Your task to perform on an android device: Go to internet settings Image 0: 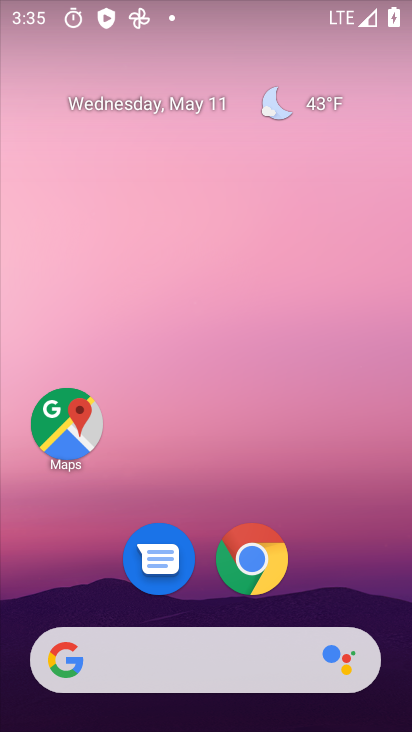
Step 0: drag from (334, 541) to (279, 92)
Your task to perform on an android device: Go to internet settings Image 1: 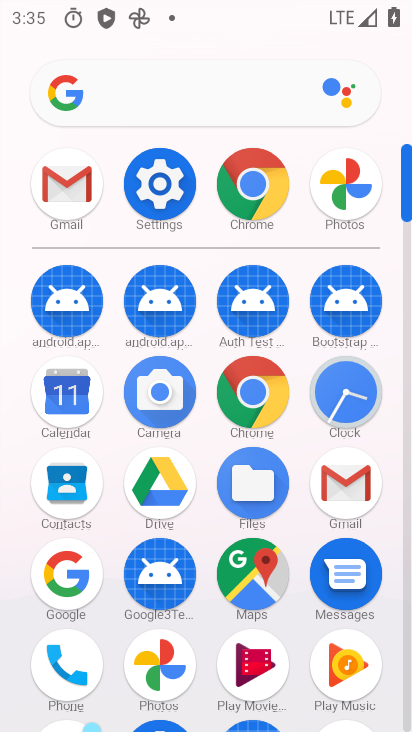
Step 1: click (157, 181)
Your task to perform on an android device: Go to internet settings Image 2: 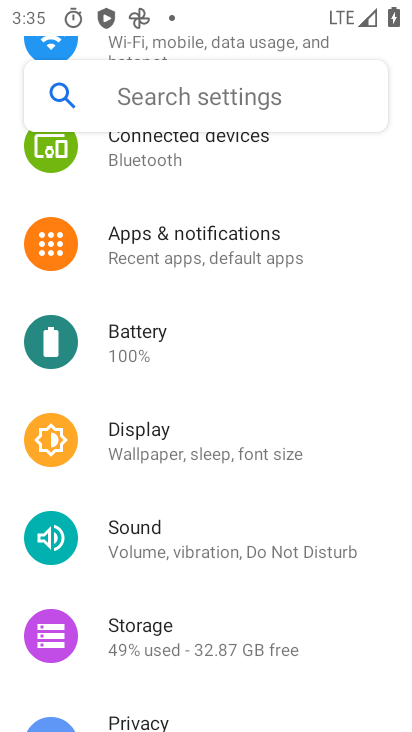
Step 2: drag from (232, 178) to (247, 558)
Your task to perform on an android device: Go to internet settings Image 3: 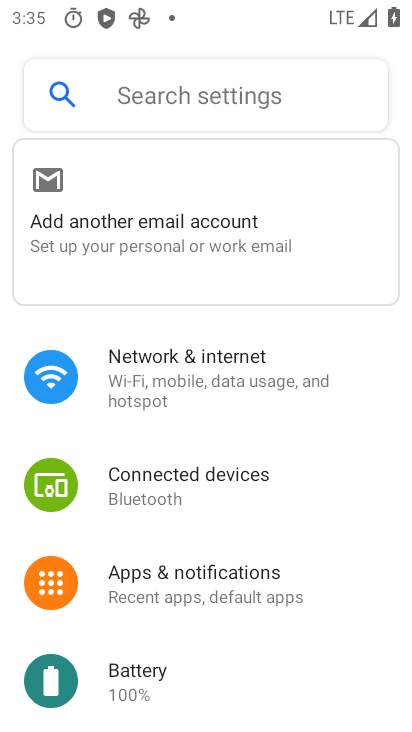
Step 3: click (203, 358)
Your task to perform on an android device: Go to internet settings Image 4: 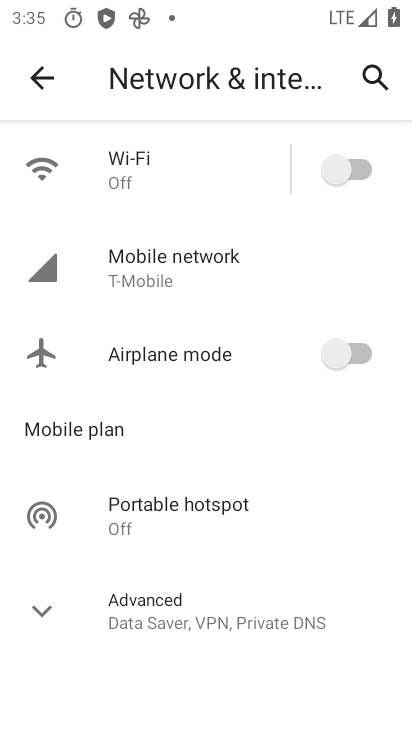
Step 4: task complete